Your task to perform on an android device: allow cookies in the chrome app Image 0: 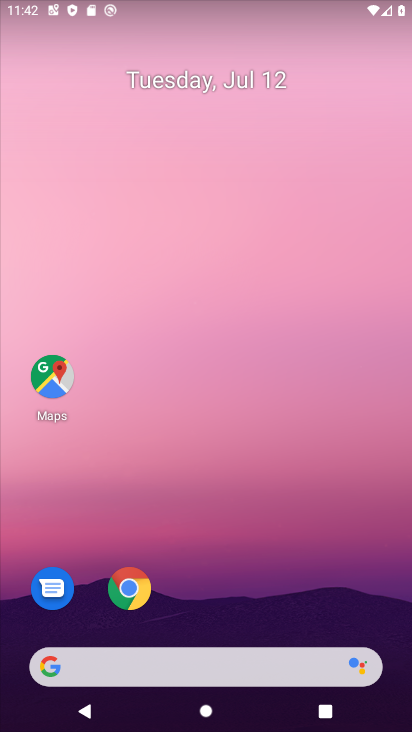
Step 0: click (121, 581)
Your task to perform on an android device: allow cookies in the chrome app Image 1: 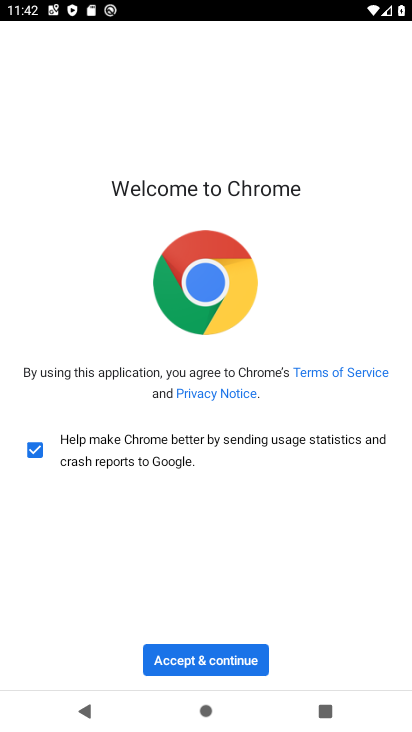
Step 1: click (210, 649)
Your task to perform on an android device: allow cookies in the chrome app Image 2: 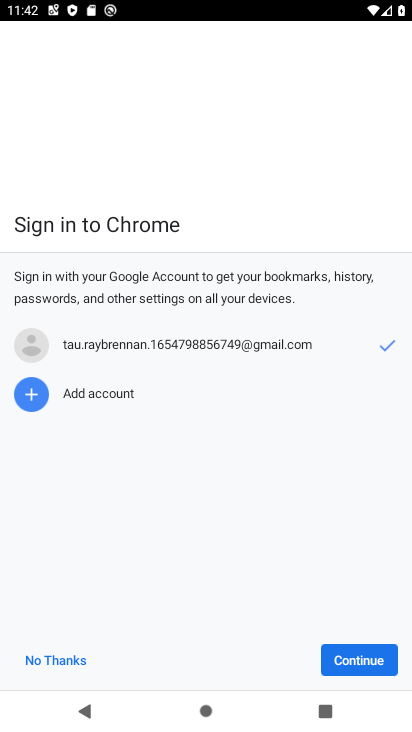
Step 2: click (365, 661)
Your task to perform on an android device: allow cookies in the chrome app Image 3: 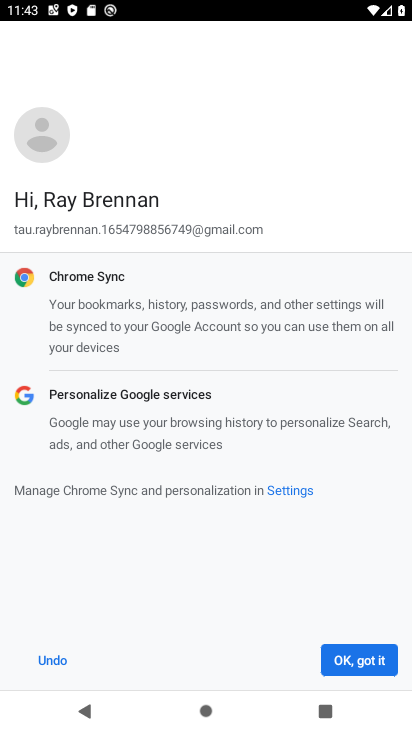
Step 3: click (365, 661)
Your task to perform on an android device: allow cookies in the chrome app Image 4: 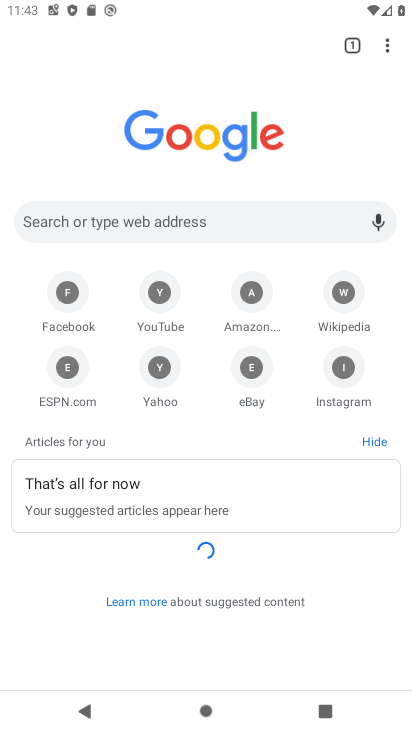
Step 4: click (315, 601)
Your task to perform on an android device: allow cookies in the chrome app Image 5: 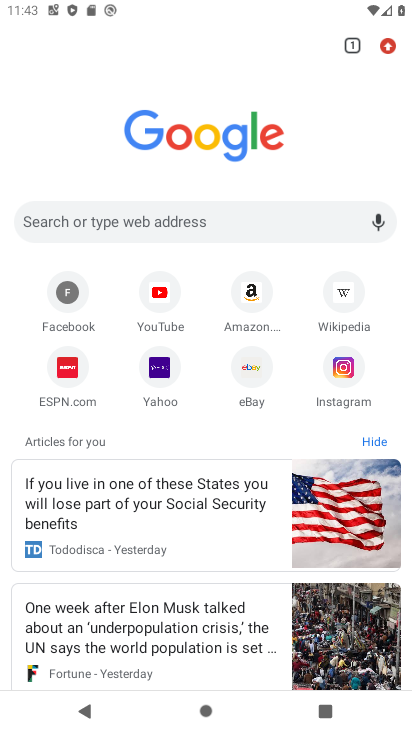
Step 5: click (392, 45)
Your task to perform on an android device: allow cookies in the chrome app Image 6: 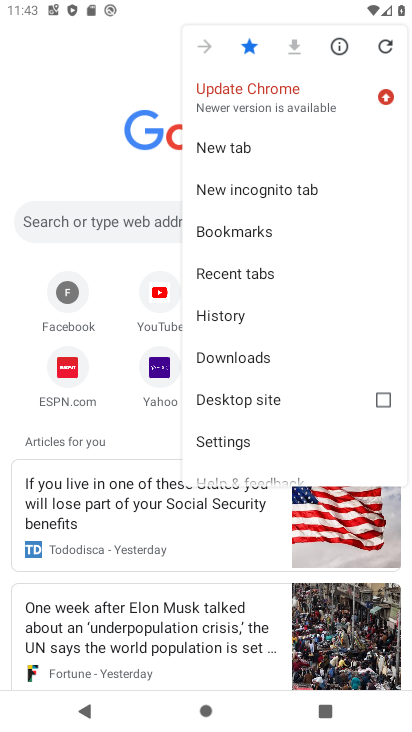
Step 6: click (385, 93)
Your task to perform on an android device: allow cookies in the chrome app Image 7: 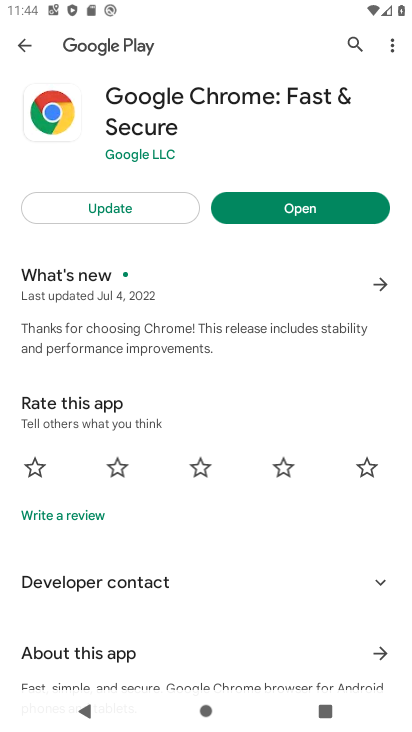
Step 7: click (306, 206)
Your task to perform on an android device: allow cookies in the chrome app Image 8: 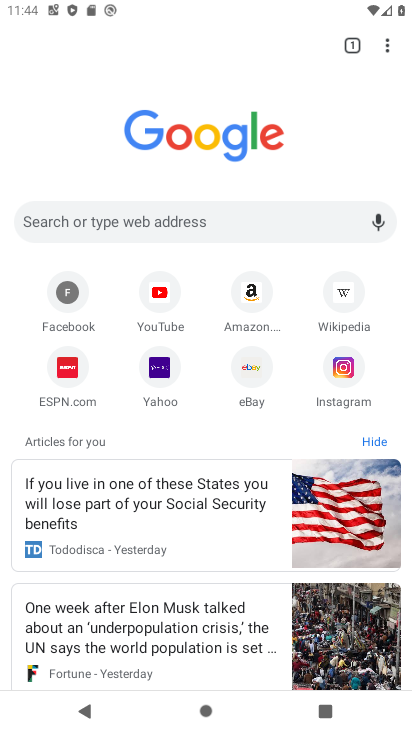
Step 8: click (387, 47)
Your task to perform on an android device: allow cookies in the chrome app Image 9: 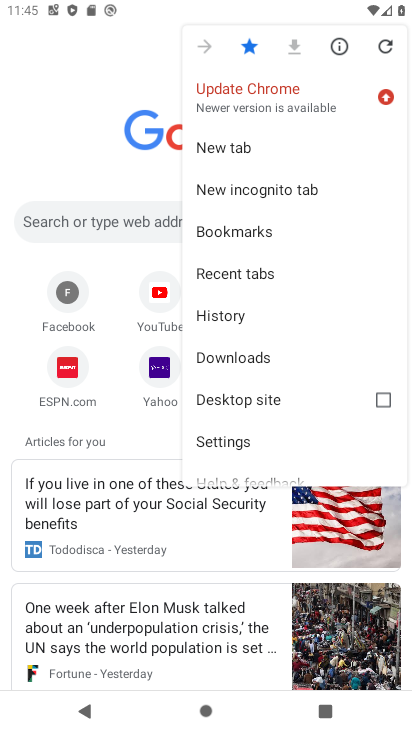
Step 9: click (210, 436)
Your task to perform on an android device: allow cookies in the chrome app Image 10: 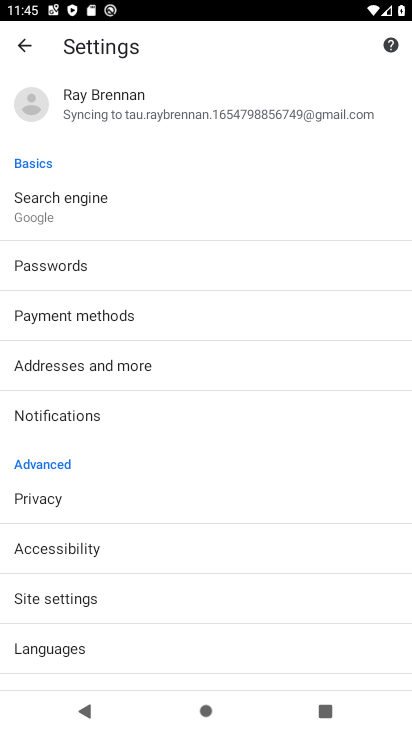
Step 10: click (53, 602)
Your task to perform on an android device: allow cookies in the chrome app Image 11: 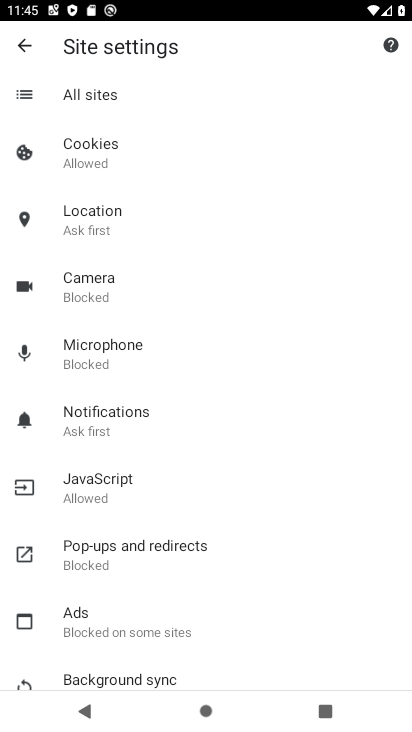
Step 11: click (81, 151)
Your task to perform on an android device: allow cookies in the chrome app Image 12: 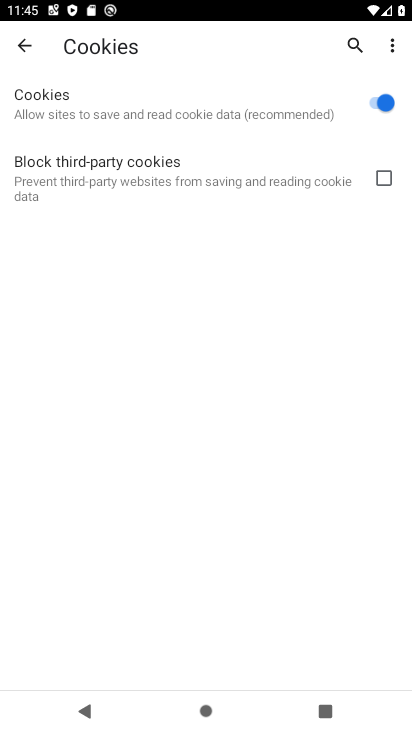
Step 12: task complete